Your task to perform on an android device: Turn on the flashlight Image 0: 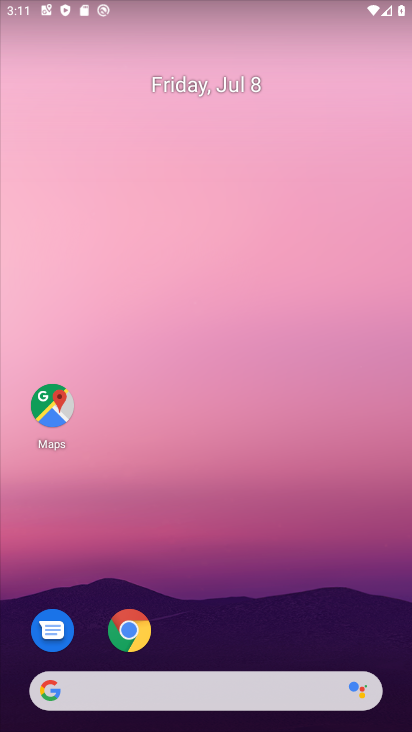
Step 0: drag from (293, 604) to (184, 47)
Your task to perform on an android device: Turn on the flashlight Image 1: 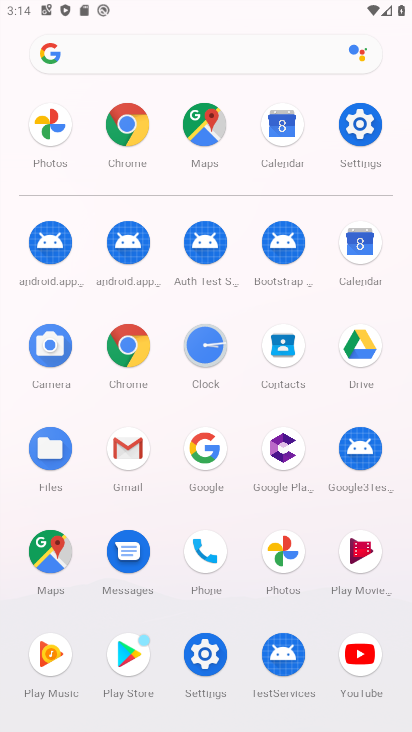
Step 1: click (350, 152)
Your task to perform on an android device: Turn on the flashlight Image 2: 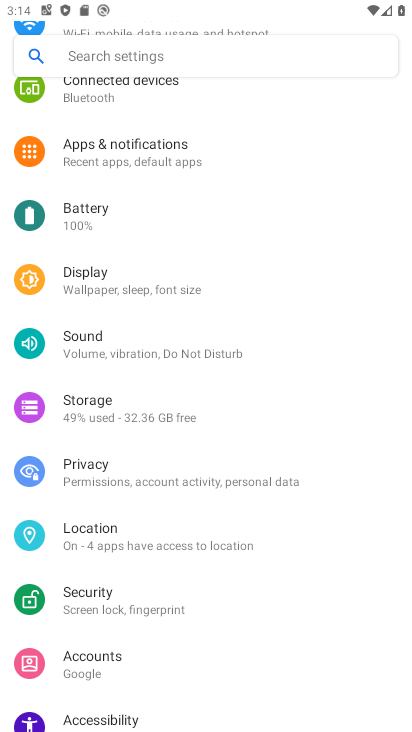
Step 2: drag from (166, 641) to (286, 107)
Your task to perform on an android device: Turn on the flashlight Image 3: 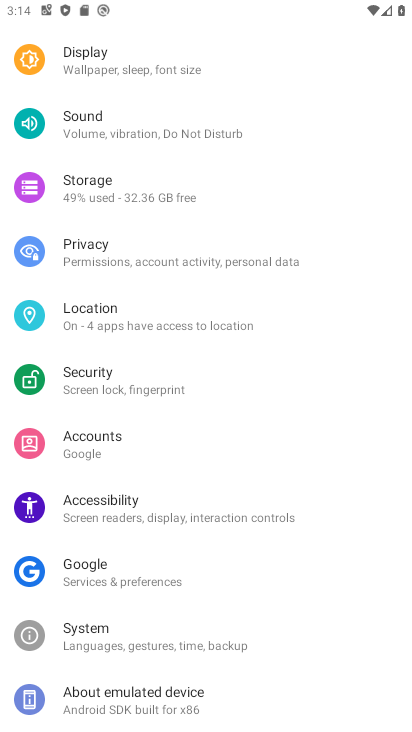
Step 3: click (228, 215)
Your task to perform on an android device: Turn on the flashlight Image 4: 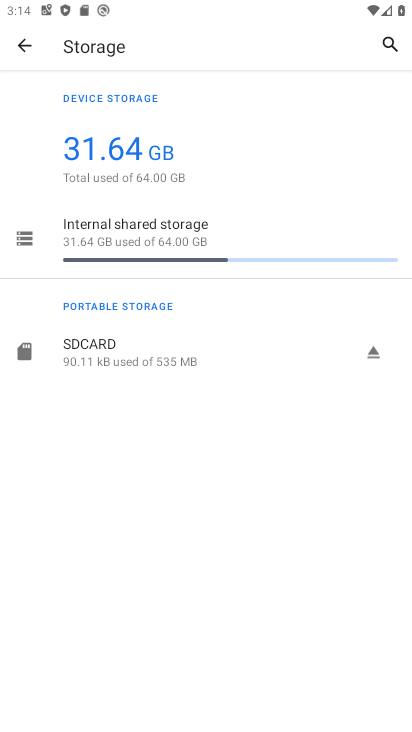
Step 4: task complete